Your task to perform on an android device: Go to location settings Image 0: 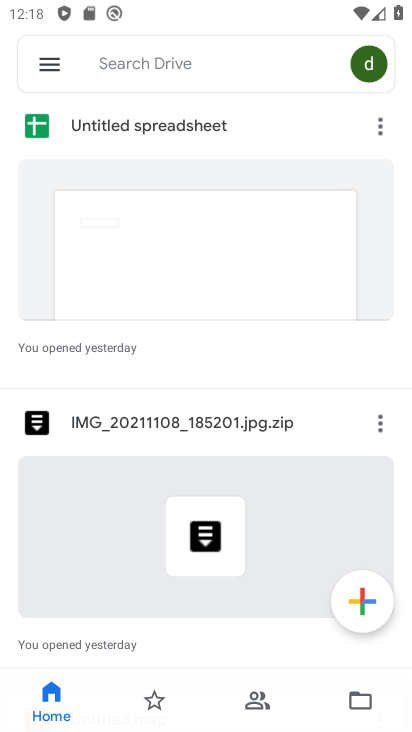
Step 0: press home button
Your task to perform on an android device: Go to location settings Image 1: 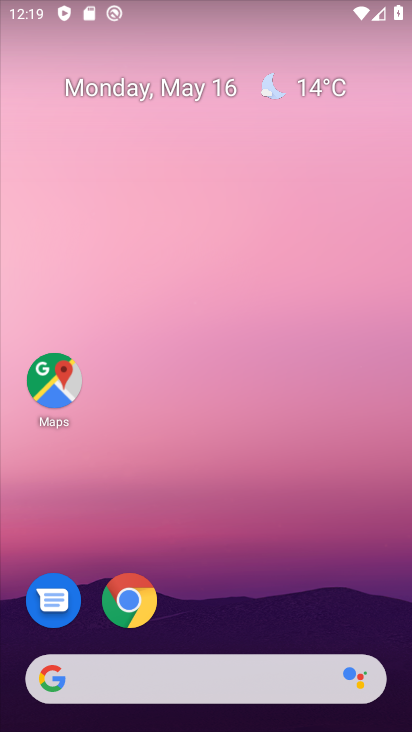
Step 1: drag from (176, 608) to (193, 93)
Your task to perform on an android device: Go to location settings Image 2: 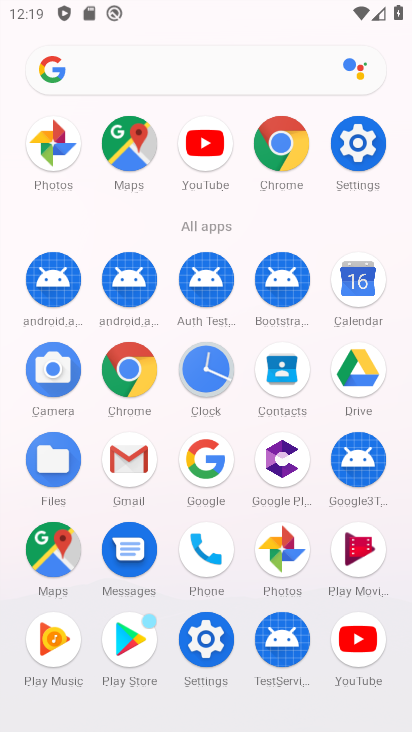
Step 2: click (195, 627)
Your task to perform on an android device: Go to location settings Image 3: 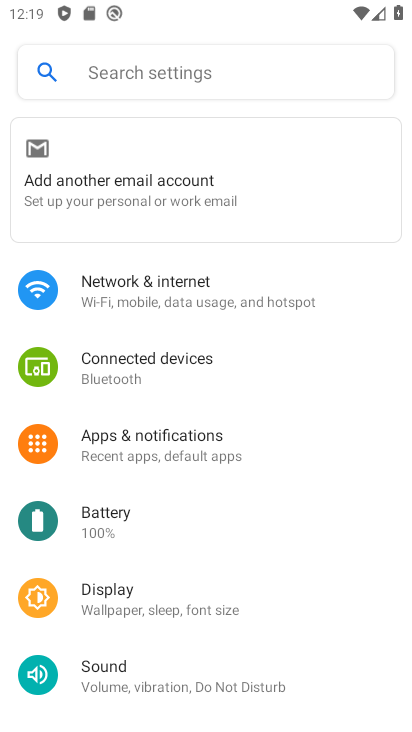
Step 3: drag from (202, 645) to (252, 330)
Your task to perform on an android device: Go to location settings Image 4: 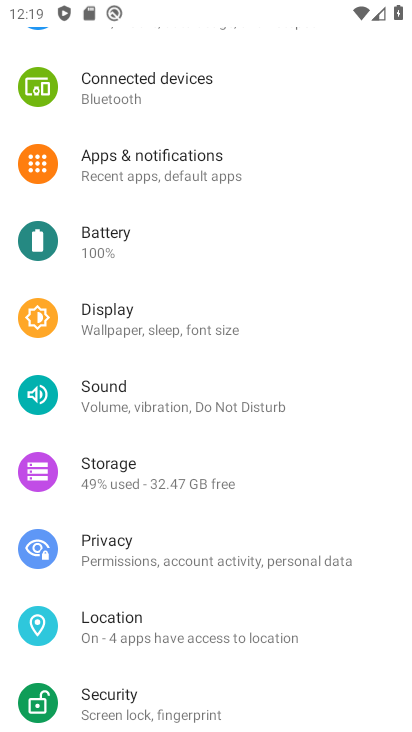
Step 4: click (130, 636)
Your task to perform on an android device: Go to location settings Image 5: 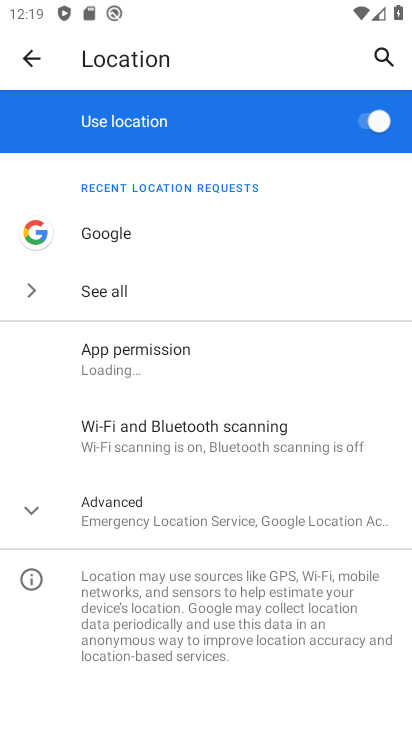
Step 5: task complete